Your task to perform on an android device: clear all cookies in the chrome app Image 0: 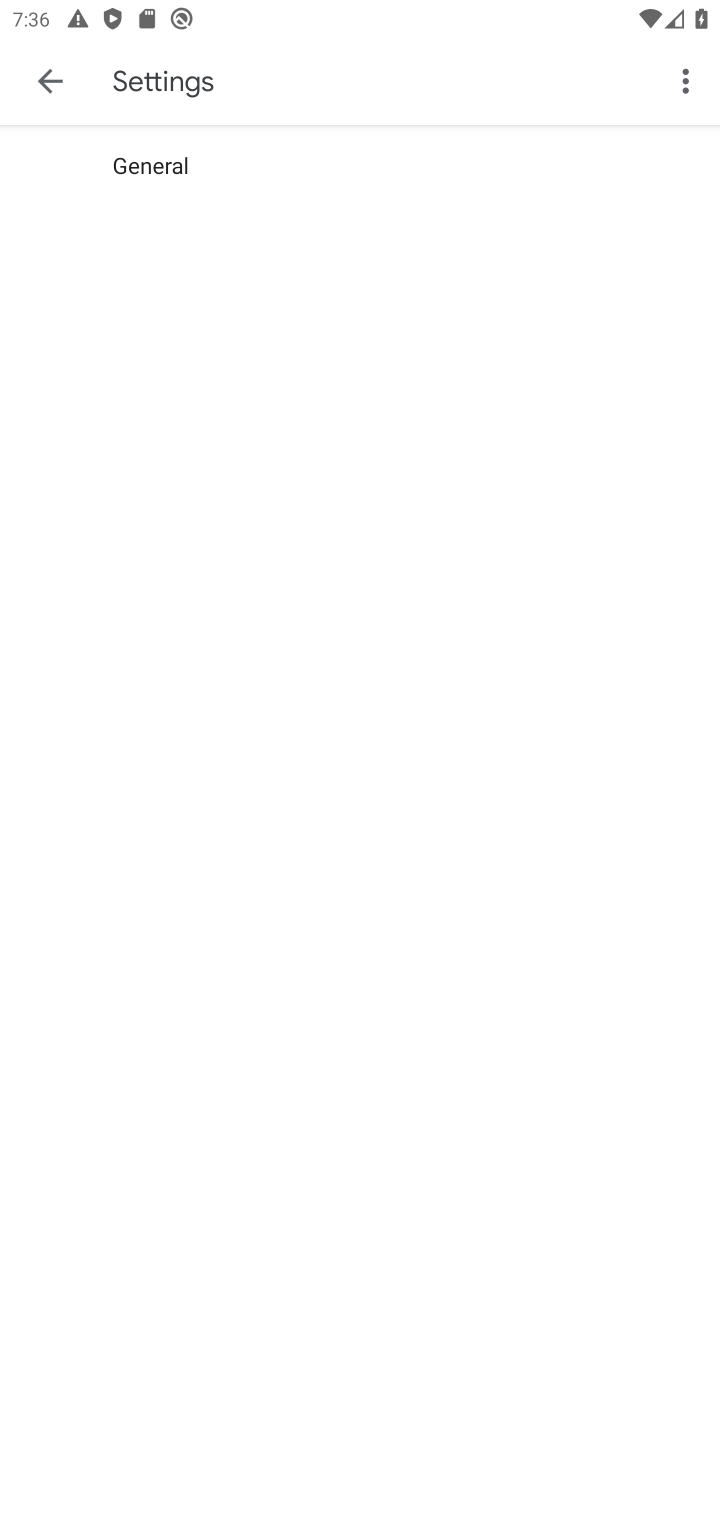
Step 0: press home button
Your task to perform on an android device: clear all cookies in the chrome app Image 1: 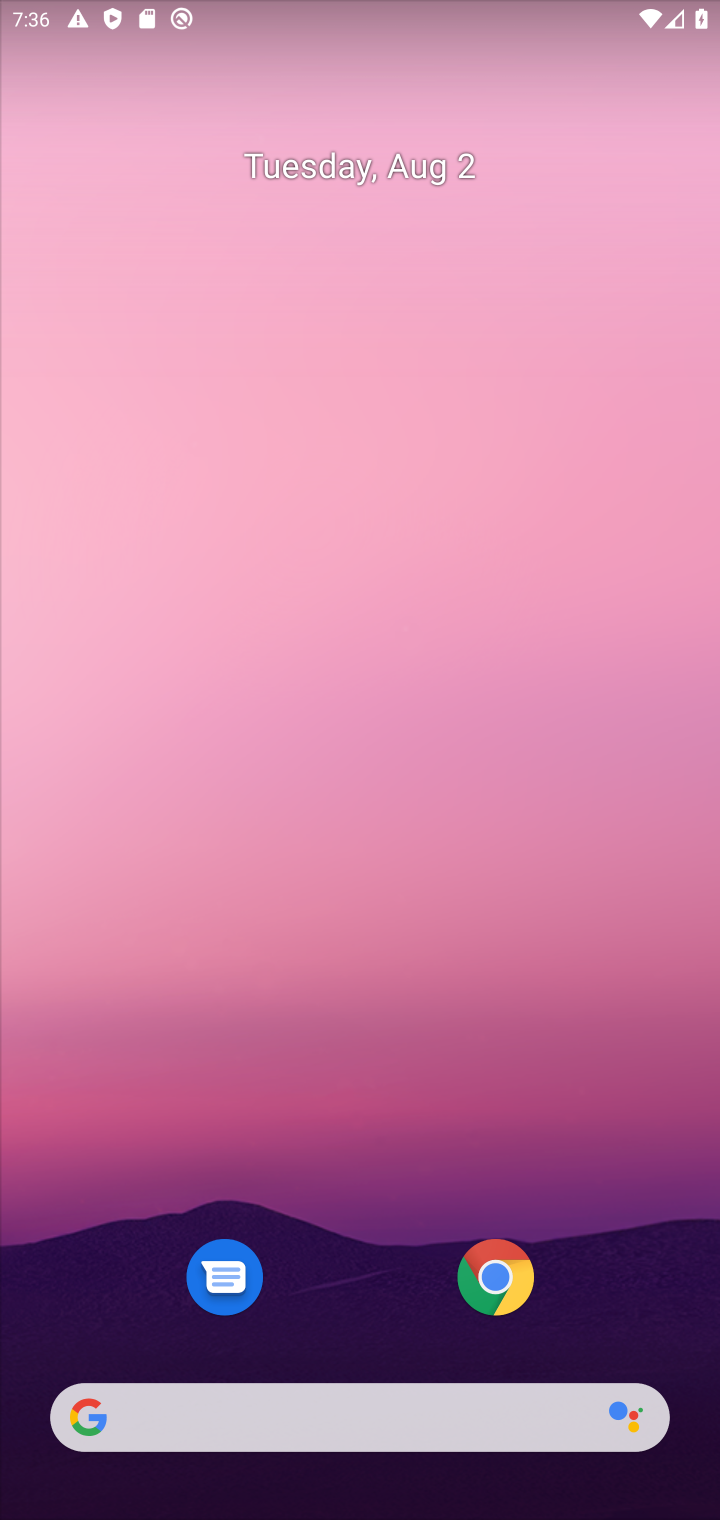
Step 1: drag from (323, 1436) to (266, 174)
Your task to perform on an android device: clear all cookies in the chrome app Image 2: 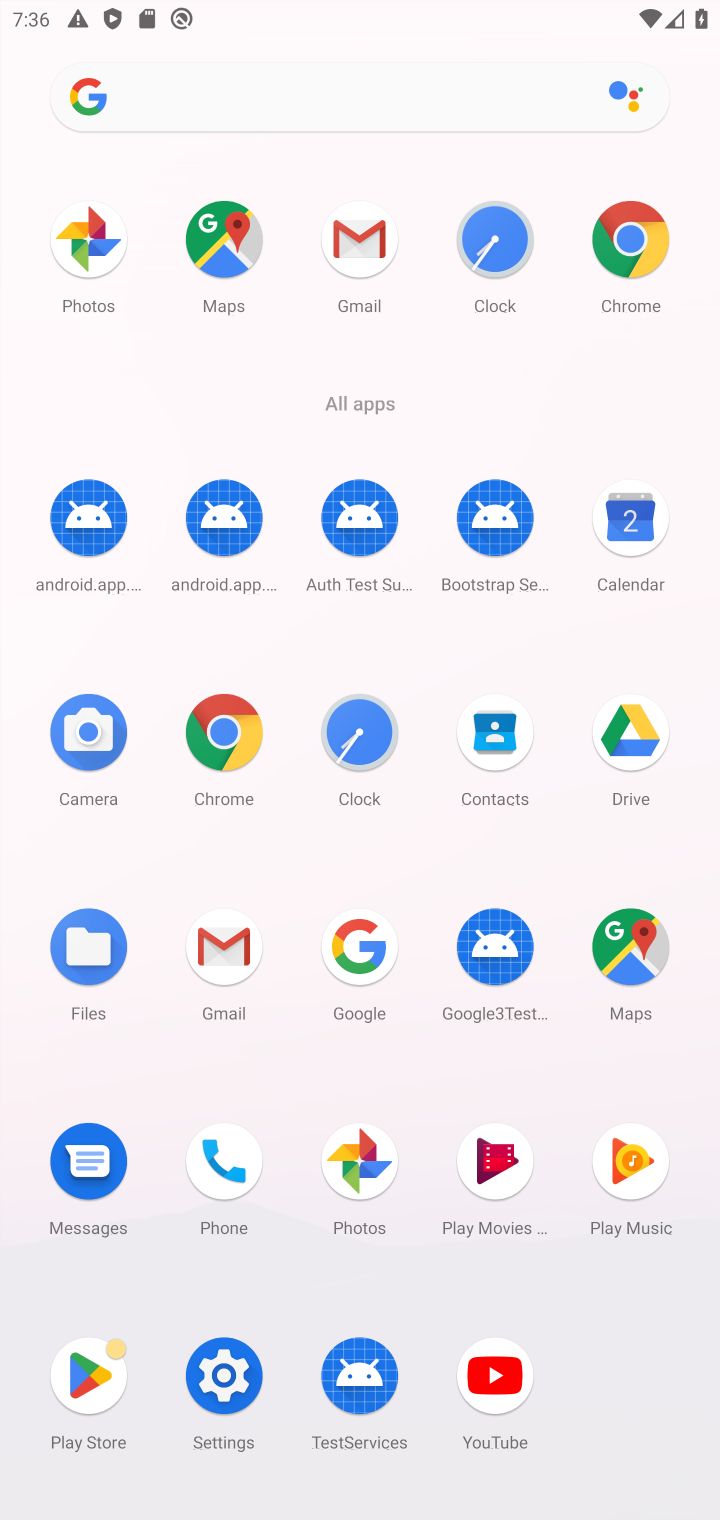
Step 2: click (241, 742)
Your task to perform on an android device: clear all cookies in the chrome app Image 3: 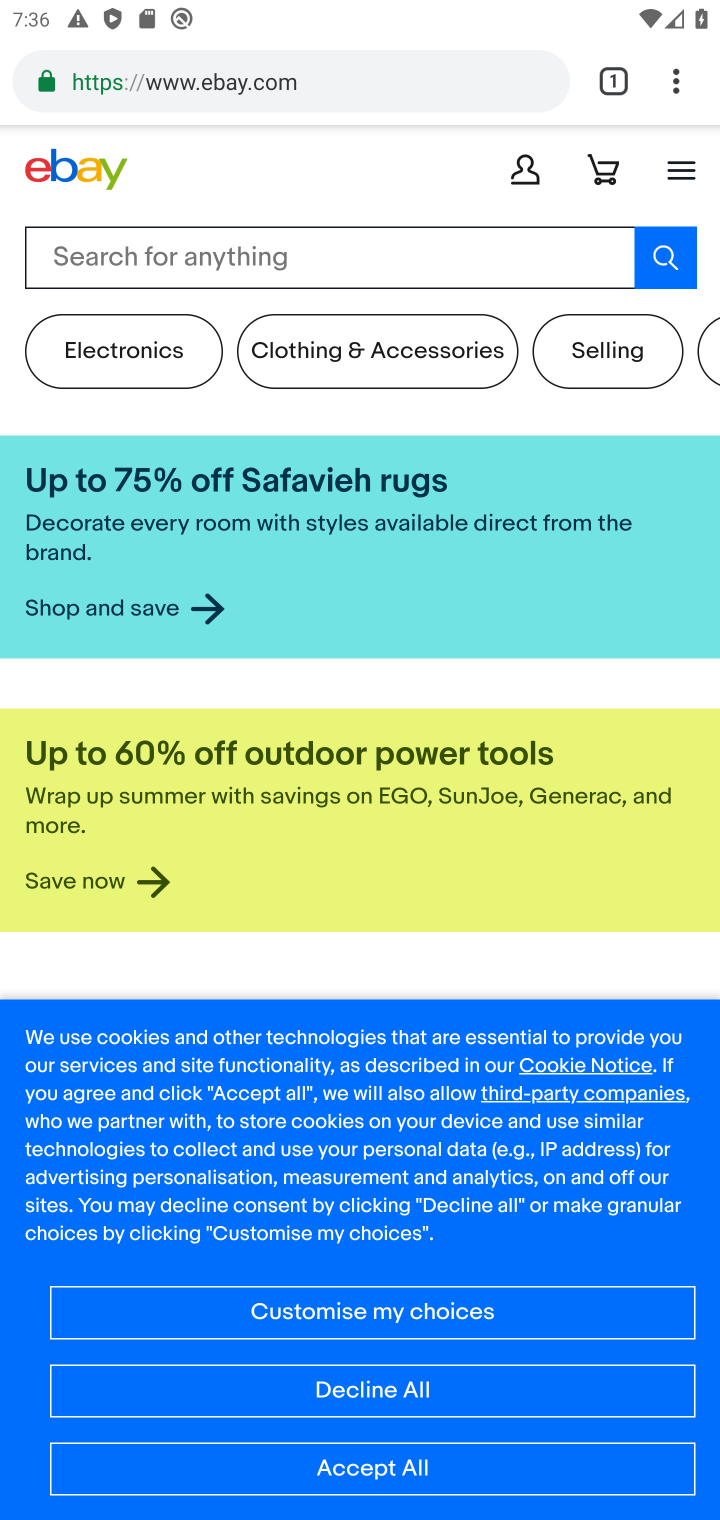
Step 3: click (674, 85)
Your task to perform on an android device: clear all cookies in the chrome app Image 4: 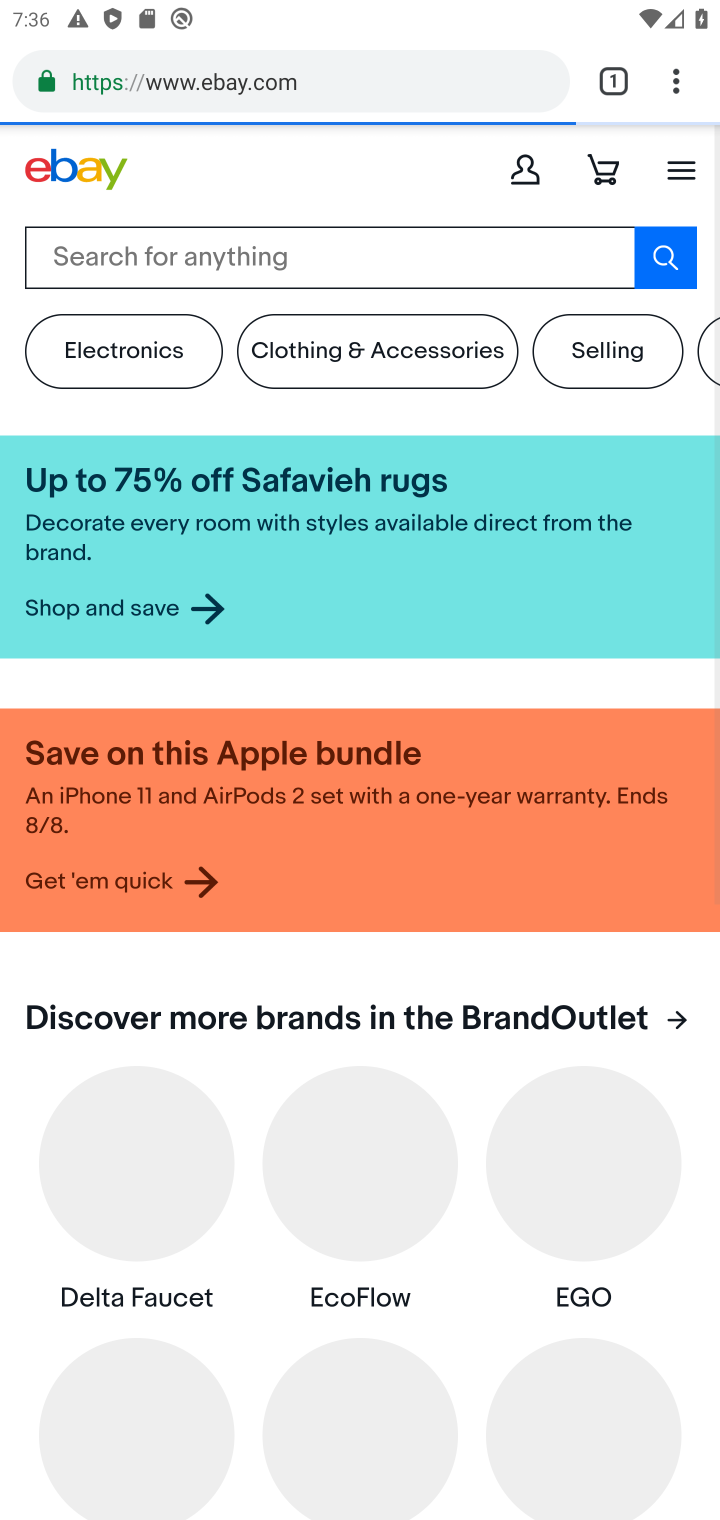
Step 4: click (673, 86)
Your task to perform on an android device: clear all cookies in the chrome app Image 5: 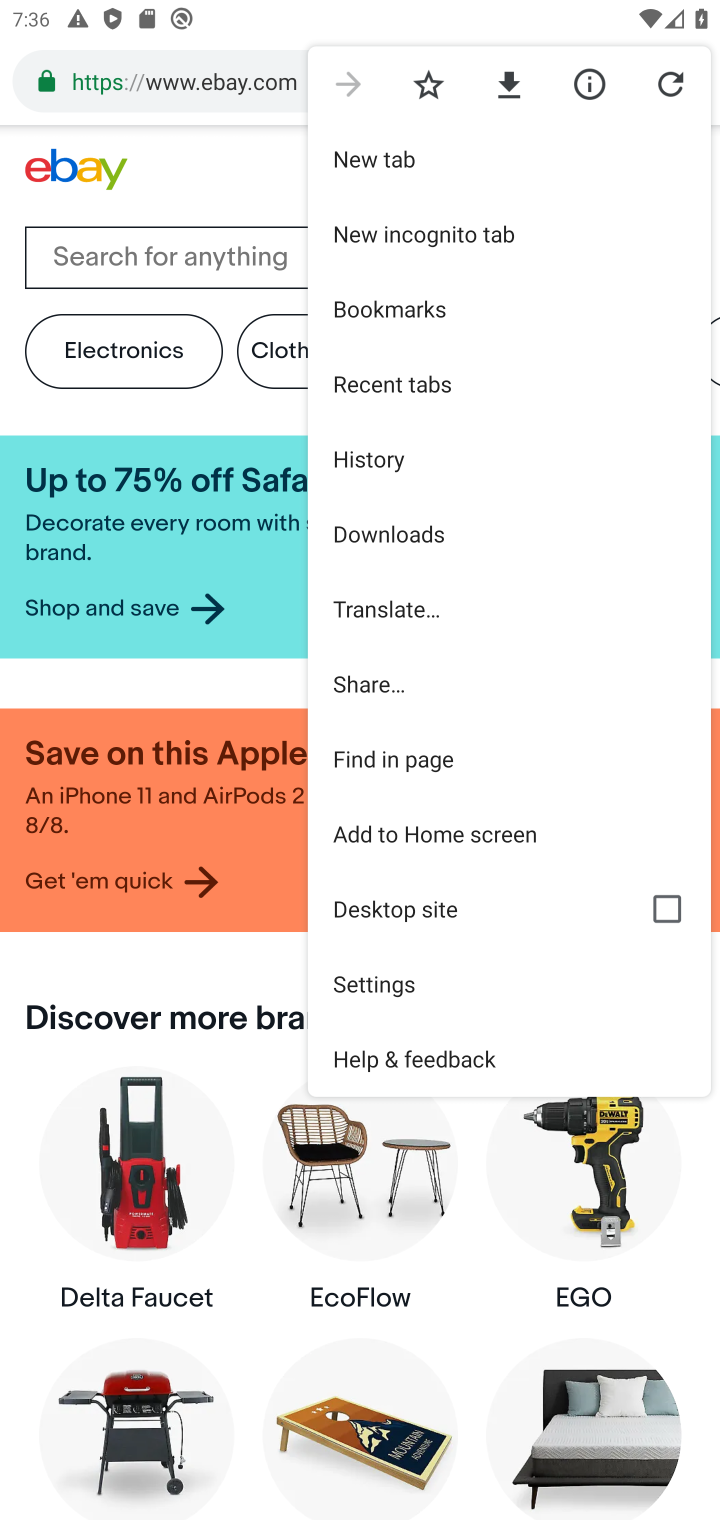
Step 5: click (389, 967)
Your task to perform on an android device: clear all cookies in the chrome app Image 6: 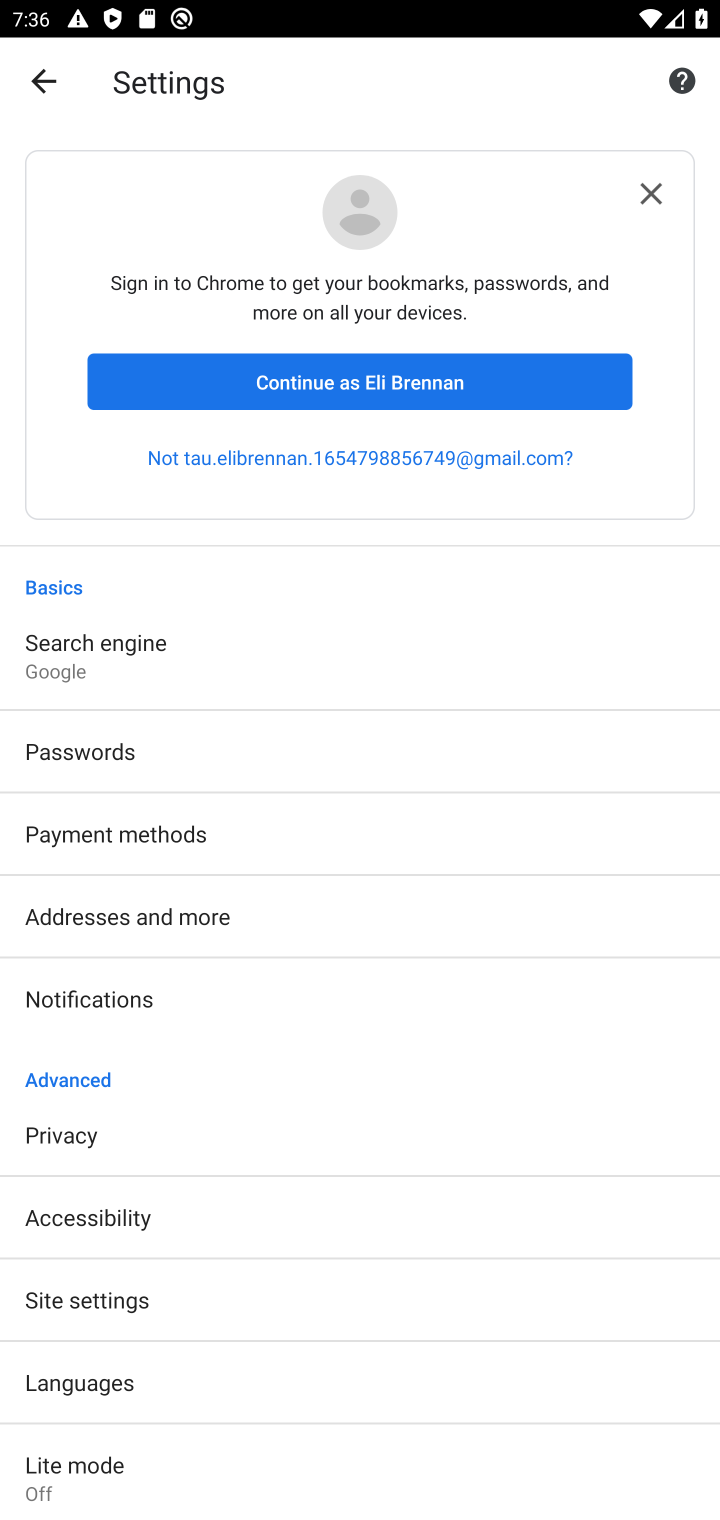
Step 6: click (108, 1149)
Your task to perform on an android device: clear all cookies in the chrome app Image 7: 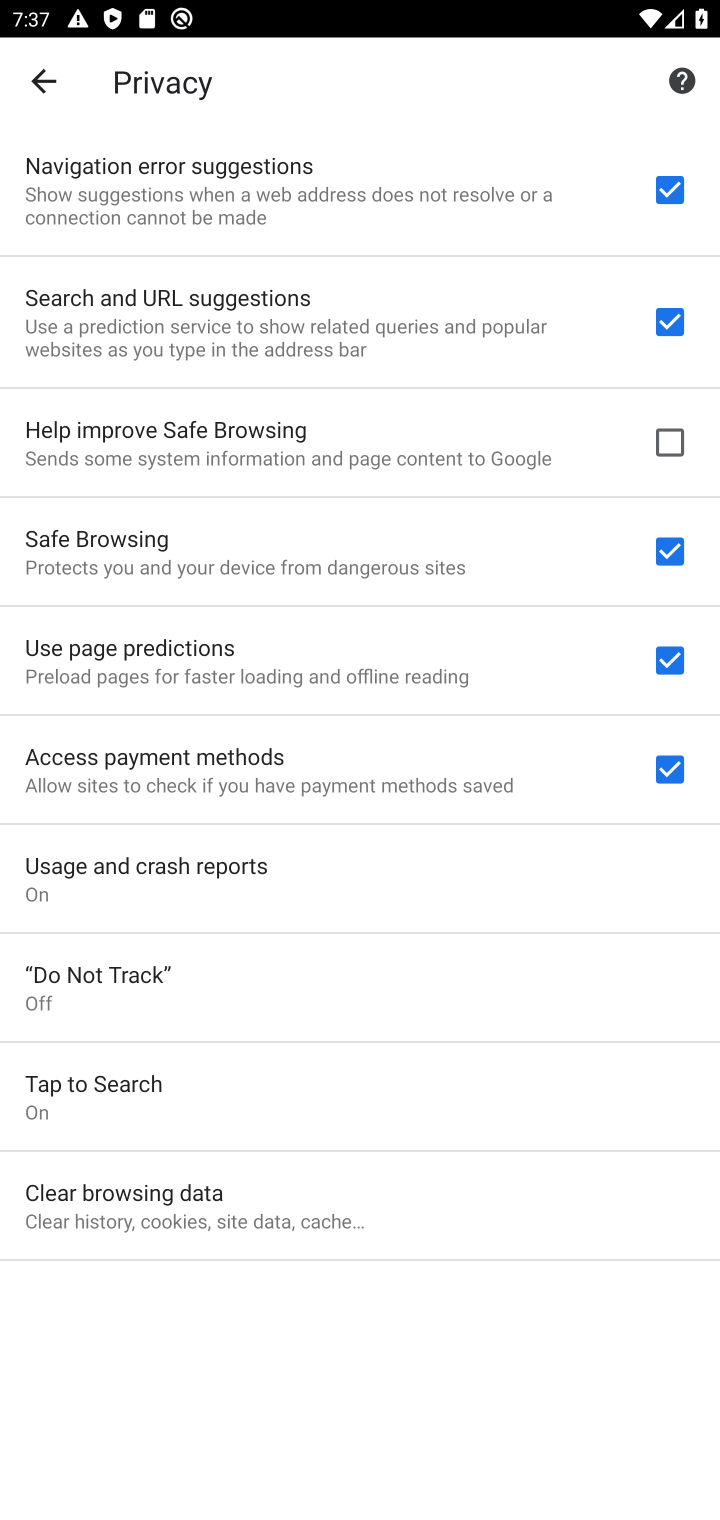
Step 7: click (110, 1200)
Your task to perform on an android device: clear all cookies in the chrome app Image 8: 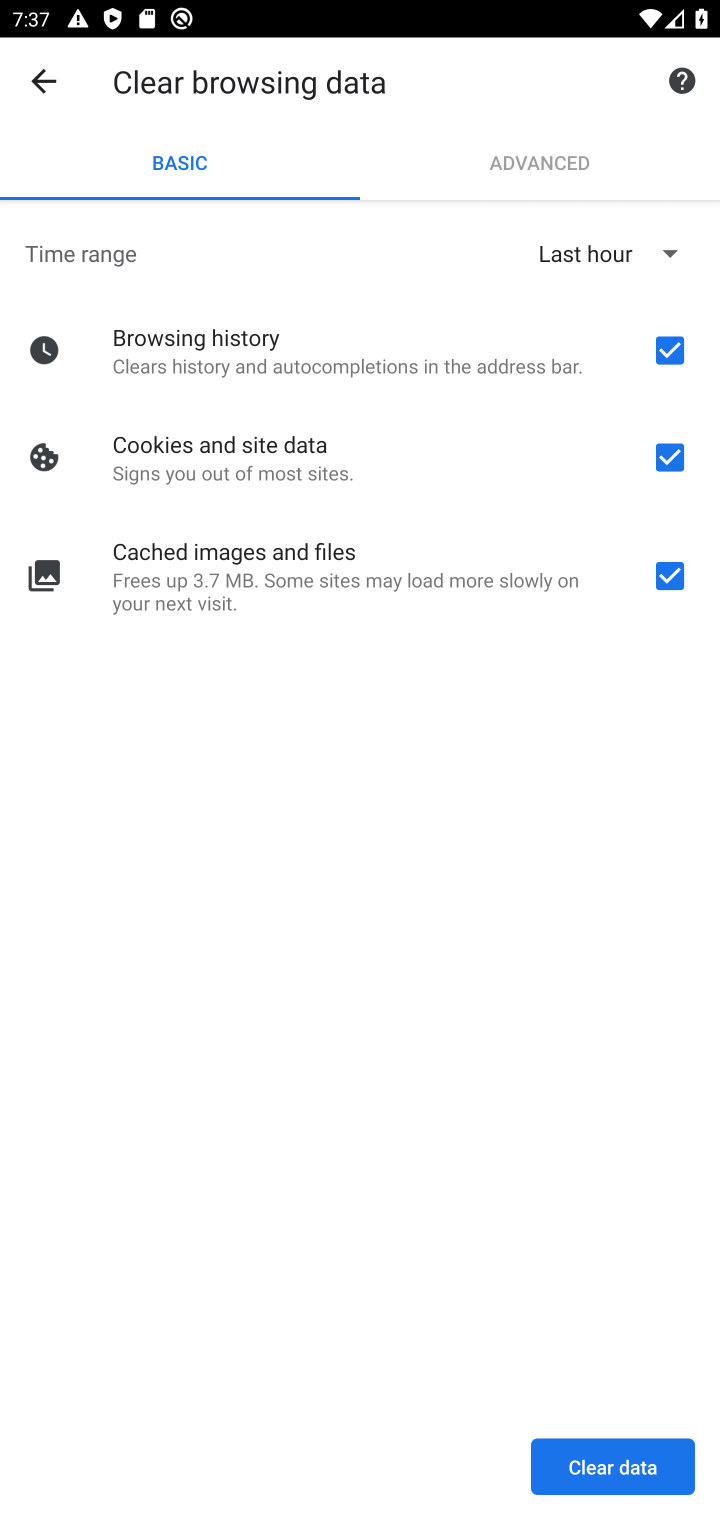
Step 8: click (602, 1448)
Your task to perform on an android device: clear all cookies in the chrome app Image 9: 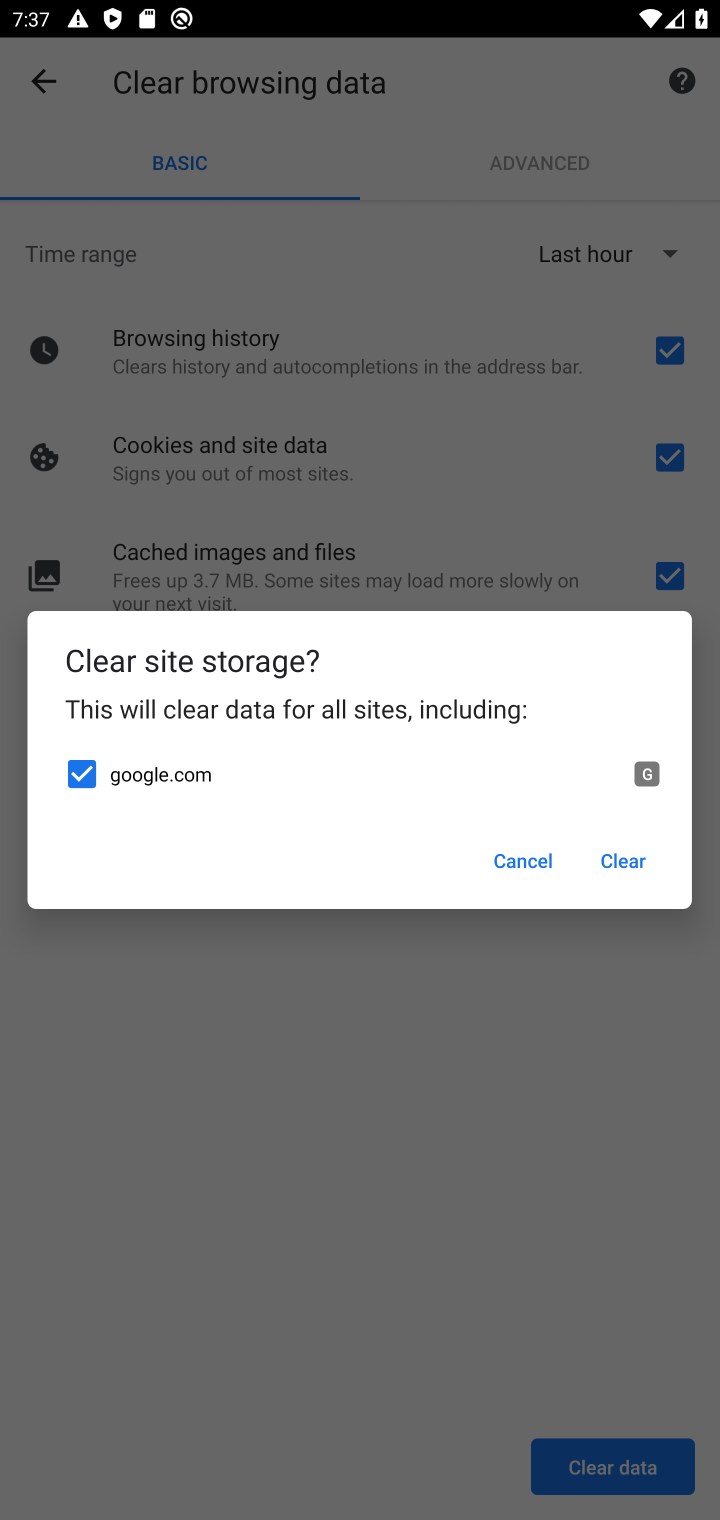
Step 9: click (625, 871)
Your task to perform on an android device: clear all cookies in the chrome app Image 10: 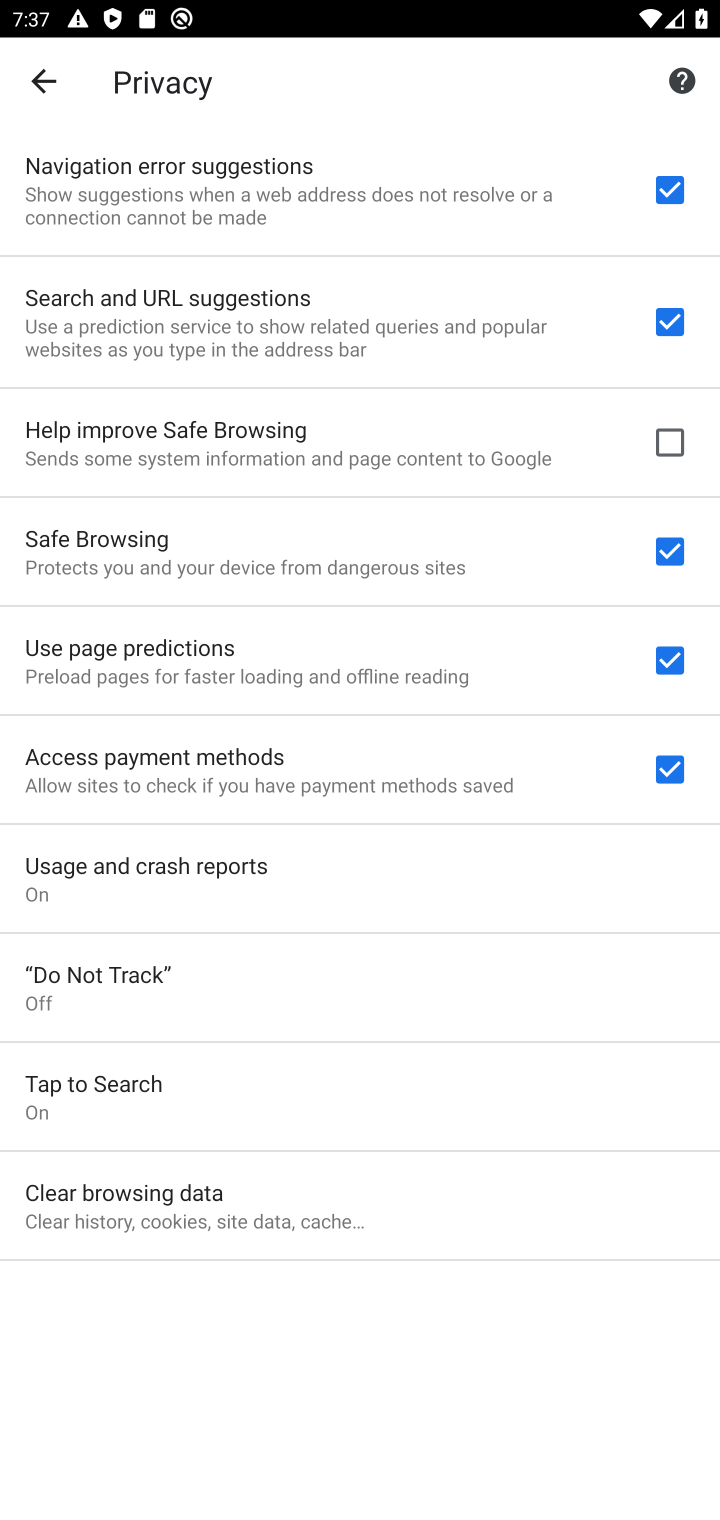
Step 10: task complete